Your task to perform on an android device: Open battery settings Image 0: 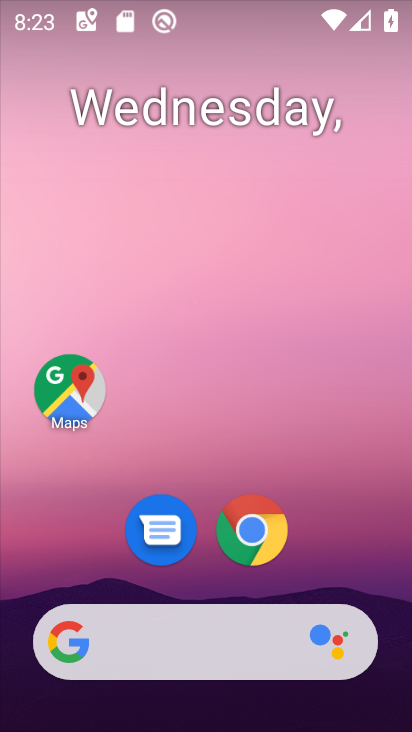
Step 0: drag from (392, 632) to (319, 23)
Your task to perform on an android device: Open battery settings Image 1: 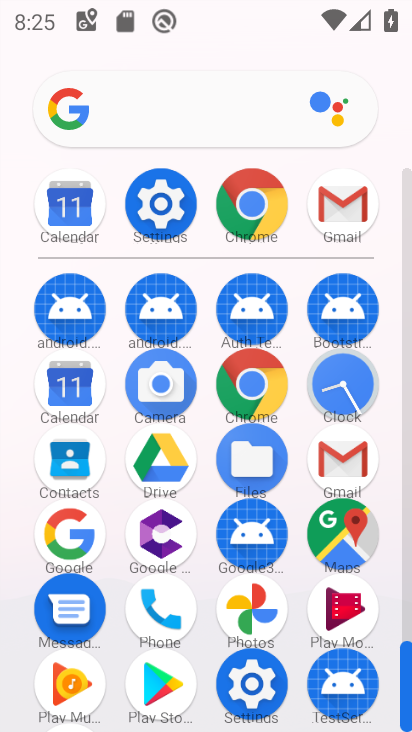
Step 1: click (262, 709)
Your task to perform on an android device: Open battery settings Image 2: 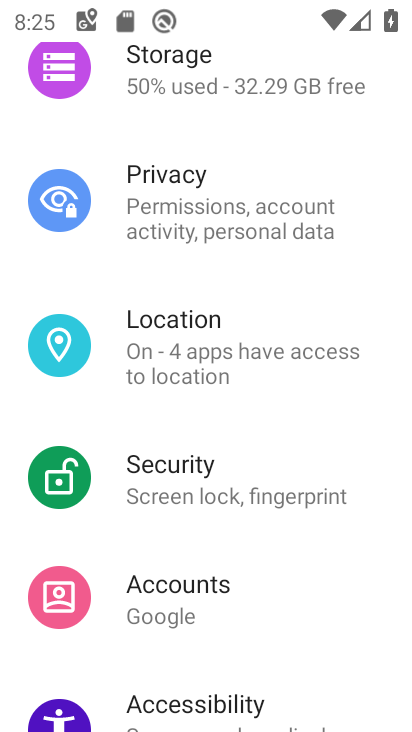
Step 2: drag from (253, 200) to (313, 652)
Your task to perform on an android device: Open battery settings Image 3: 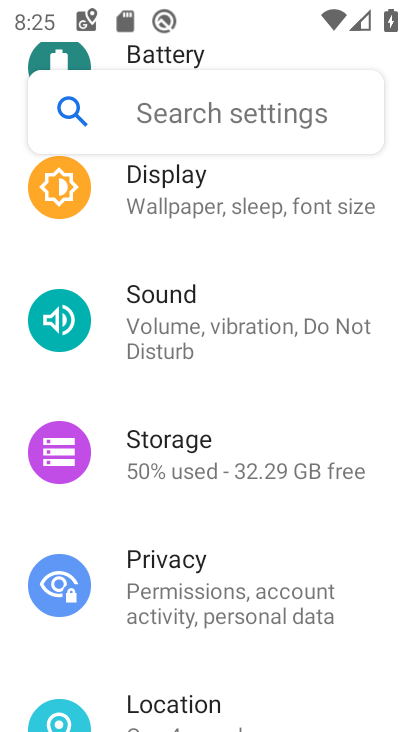
Step 3: drag from (196, 225) to (211, 624)
Your task to perform on an android device: Open battery settings Image 4: 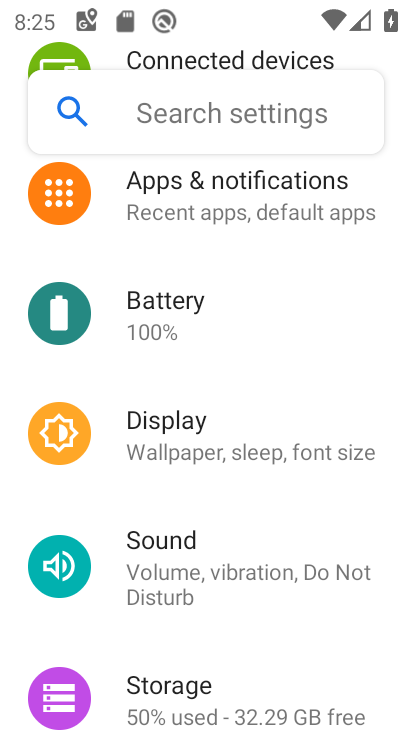
Step 4: click (169, 342)
Your task to perform on an android device: Open battery settings Image 5: 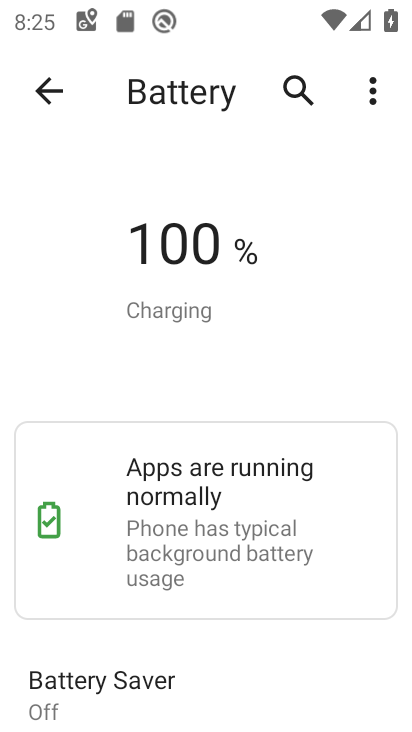
Step 5: task complete